Your task to perform on an android device: open a new tab in the chrome app Image 0: 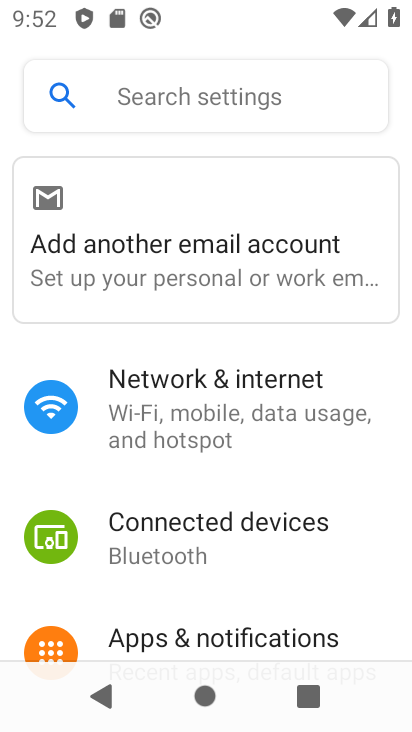
Step 0: press back button
Your task to perform on an android device: open a new tab in the chrome app Image 1: 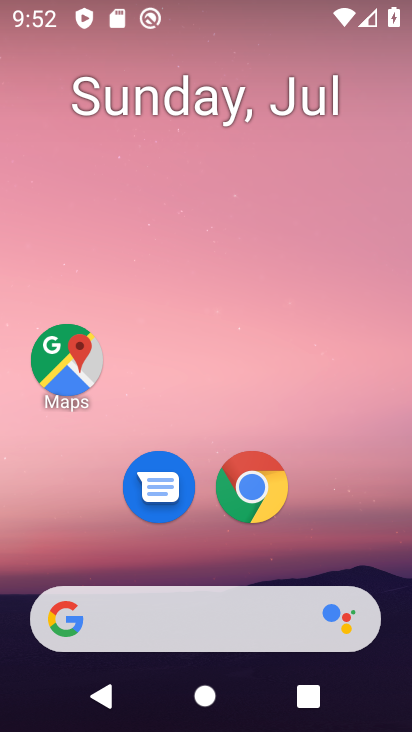
Step 1: click (236, 471)
Your task to perform on an android device: open a new tab in the chrome app Image 2: 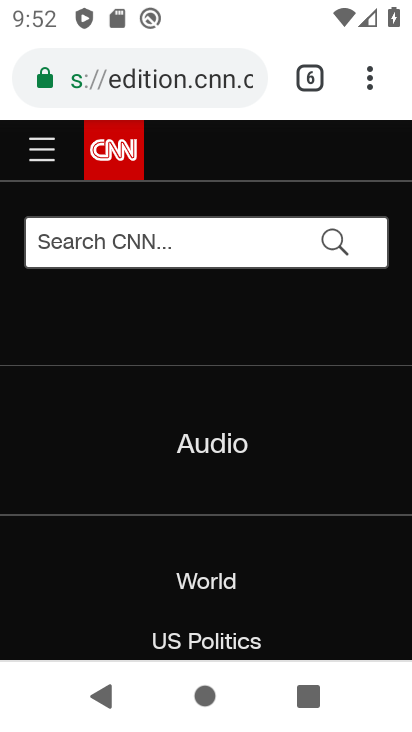
Step 2: click (297, 81)
Your task to perform on an android device: open a new tab in the chrome app Image 3: 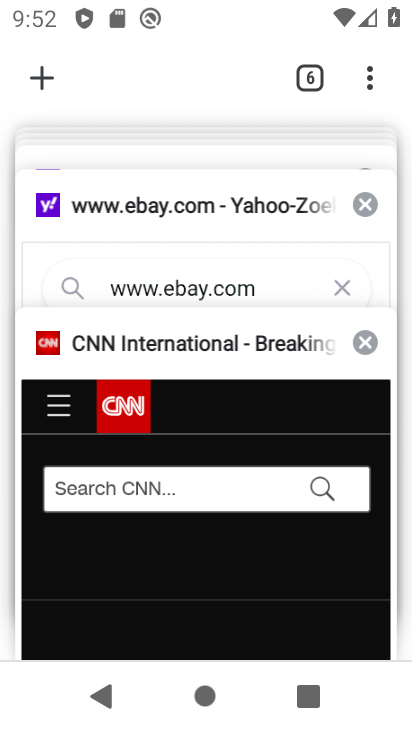
Step 3: click (50, 82)
Your task to perform on an android device: open a new tab in the chrome app Image 4: 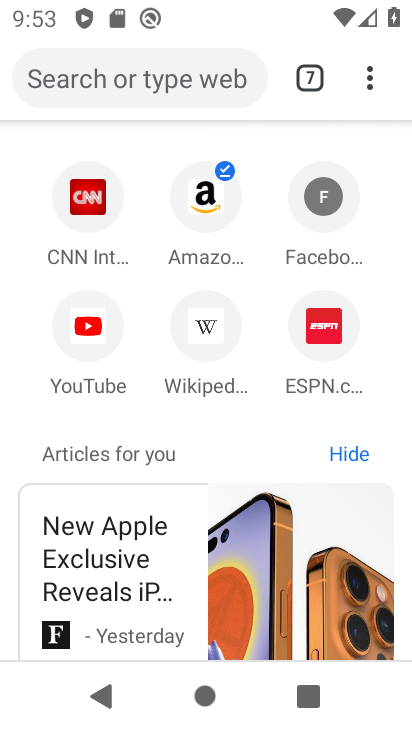
Step 4: task complete